Your task to perform on an android device: Open Google Chrome Image 0: 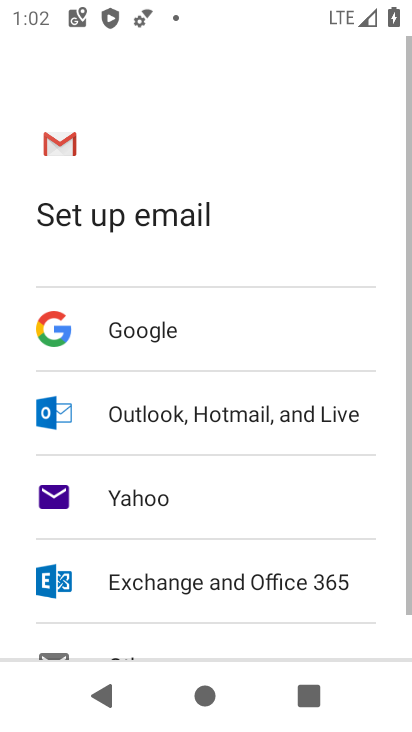
Step 0: press home button
Your task to perform on an android device: Open Google Chrome Image 1: 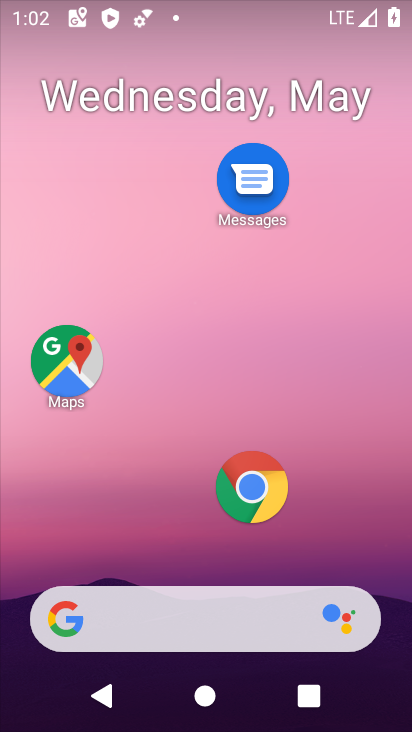
Step 1: click (269, 488)
Your task to perform on an android device: Open Google Chrome Image 2: 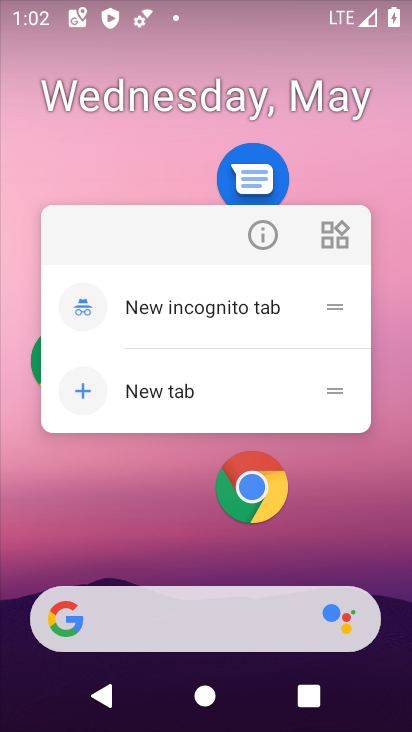
Step 2: click (269, 488)
Your task to perform on an android device: Open Google Chrome Image 3: 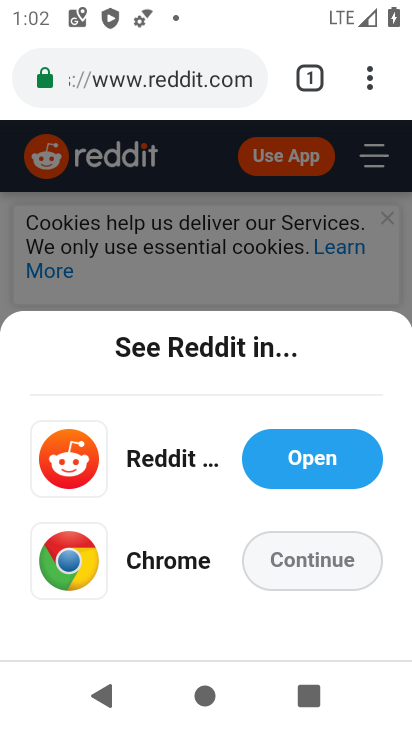
Step 3: task complete